Your task to perform on an android device: change text size in settings app Image 0: 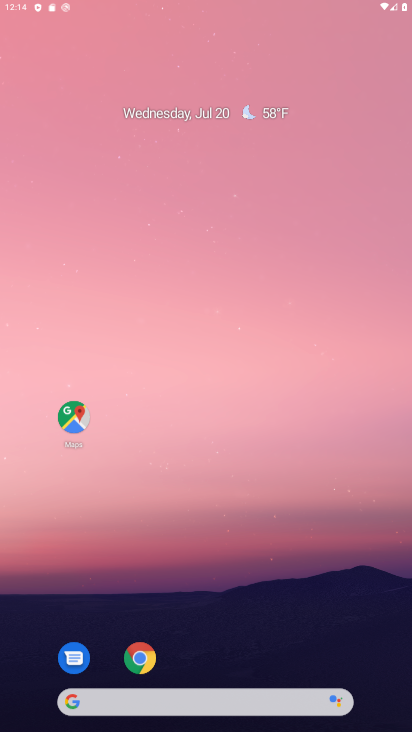
Step 0: press home button
Your task to perform on an android device: change text size in settings app Image 1: 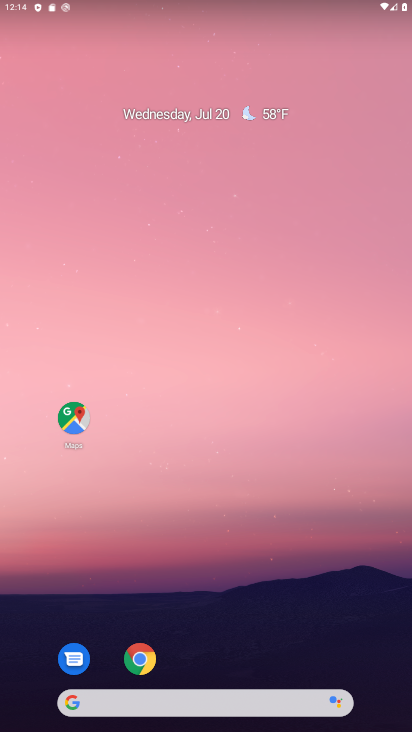
Step 1: drag from (221, 670) to (240, 23)
Your task to perform on an android device: change text size in settings app Image 2: 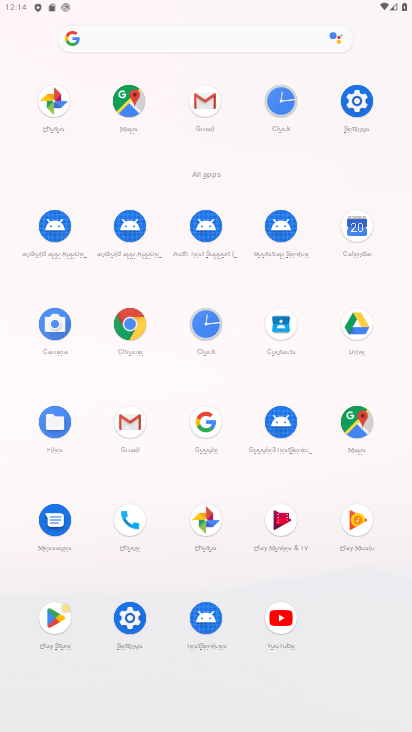
Step 2: click (356, 94)
Your task to perform on an android device: change text size in settings app Image 3: 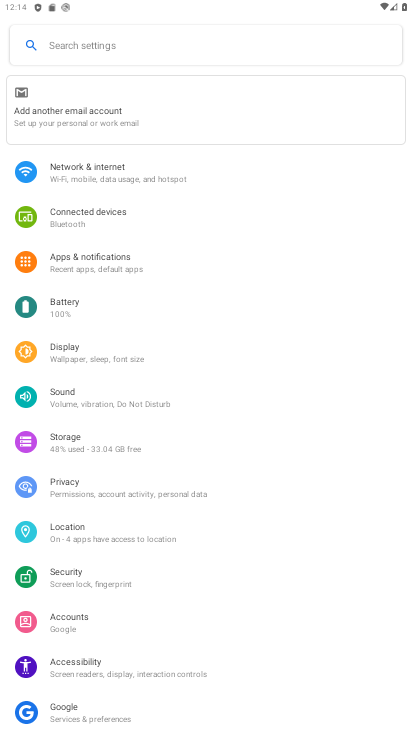
Step 3: click (92, 349)
Your task to perform on an android device: change text size in settings app Image 4: 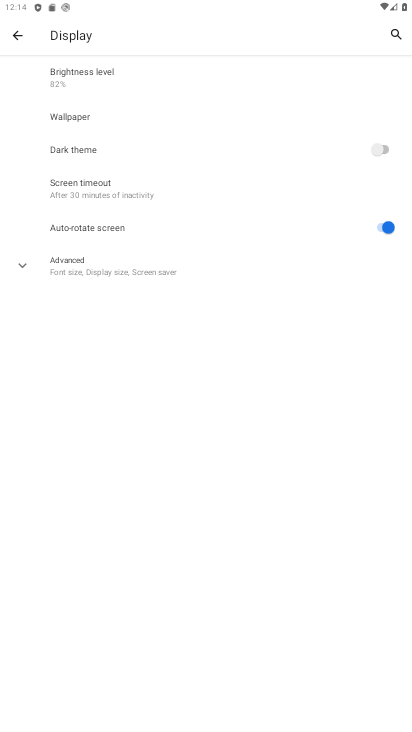
Step 4: click (23, 261)
Your task to perform on an android device: change text size in settings app Image 5: 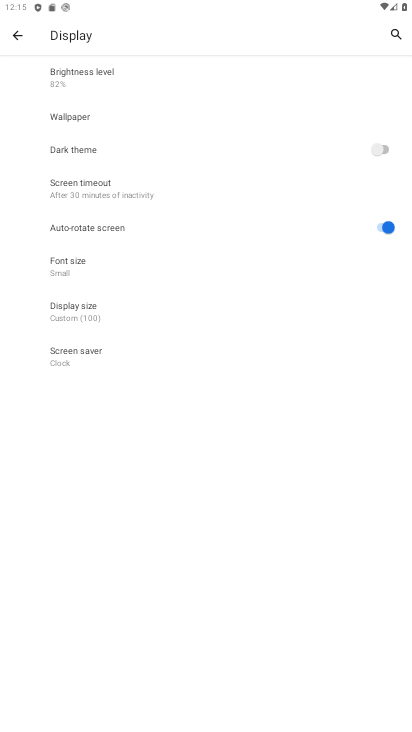
Step 5: click (97, 259)
Your task to perform on an android device: change text size in settings app Image 6: 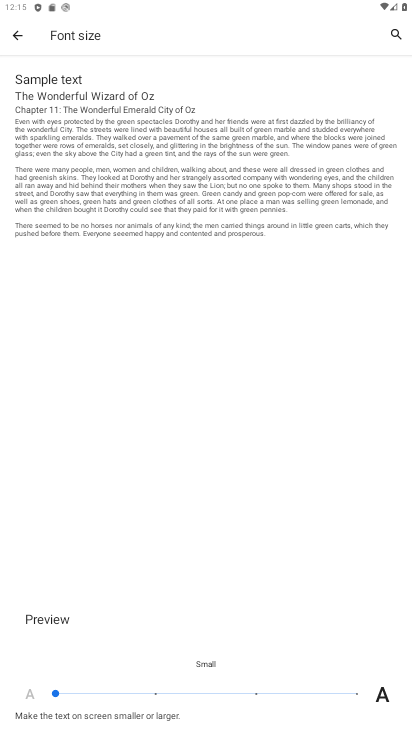
Step 6: click (354, 693)
Your task to perform on an android device: change text size in settings app Image 7: 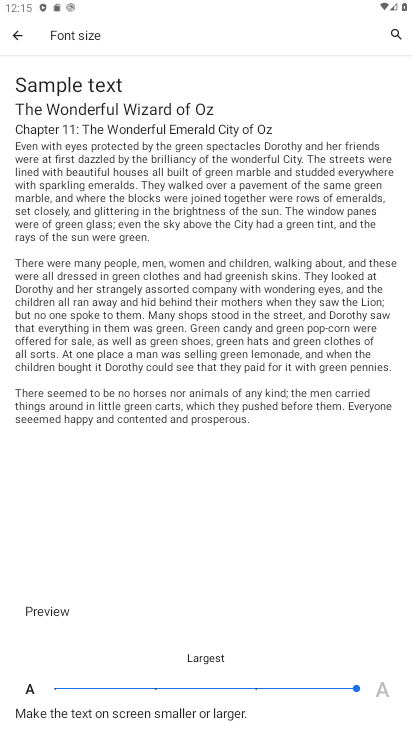
Step 7: task complete